Your task to perform on an android device: Open the web browser Image 0: 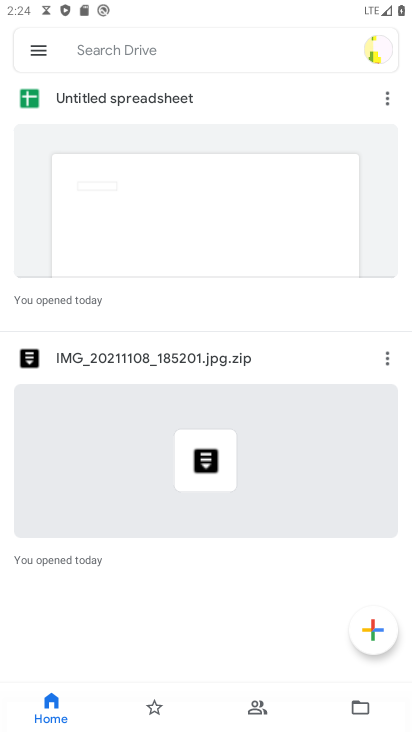
Step 0: press home button
Your task to perform on an android device: Open the web browser Image 1: 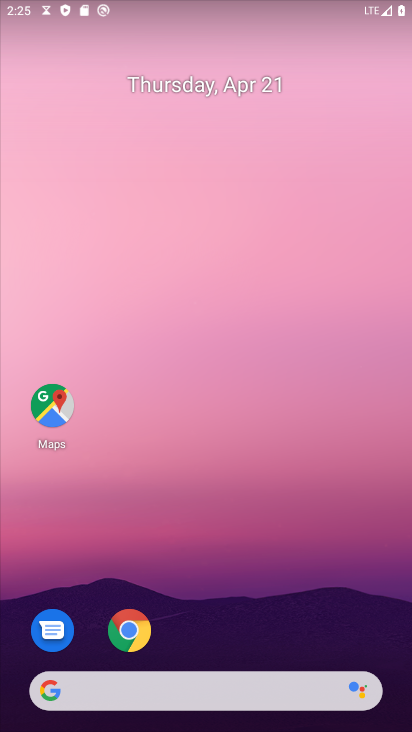
Step 1: click (128, 632)
Your task to perform on an android device: Open the web browser Image 2: 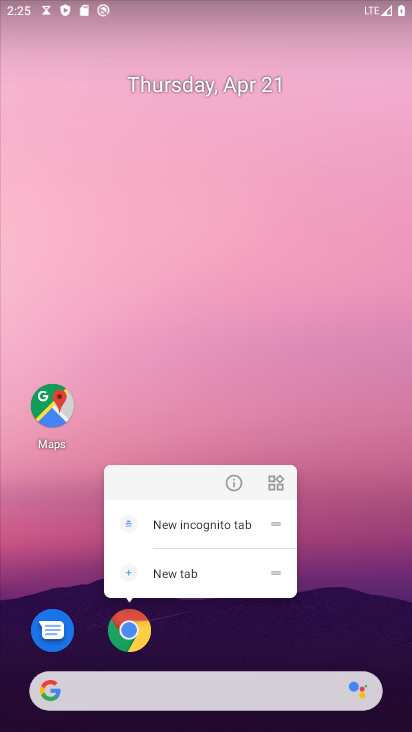
Step 2: click (125, 637)
Your task to perform on an android device: Open the web browser Image 3: 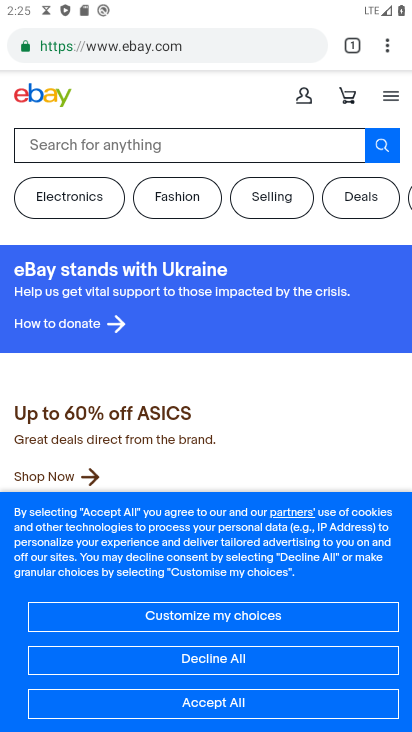
Step 3: task complete